Your task to perform on an android device: change notifications settings Image 0: 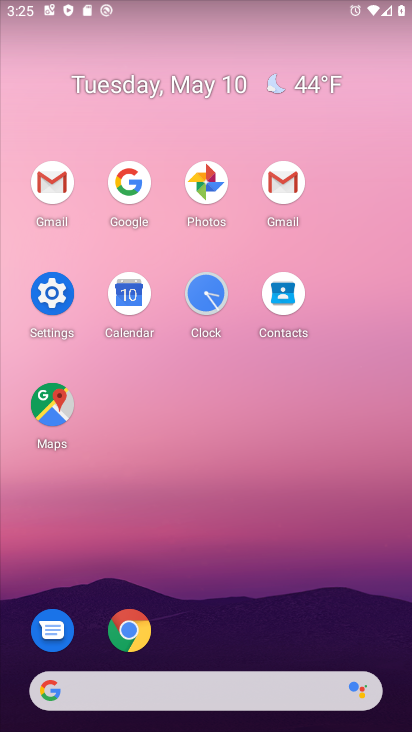
Step 0: click (47, 304)
Your task to perform on an android device: change notifications settings Image 1: 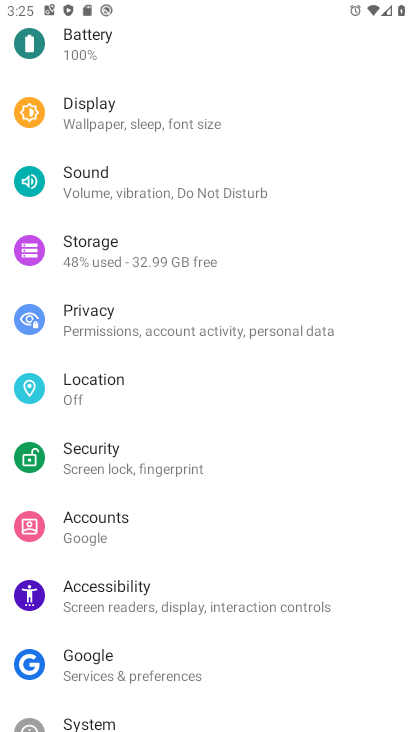
Step 1: drag from (264, 189) to (257, 610)
Your task to perform on an android device: change notifications settings Image 2: 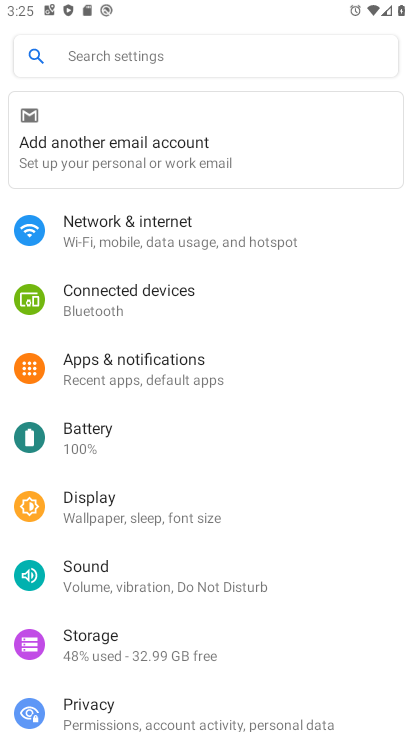
Step 2: click (179, 369)
Your task to perform on an android device: change notifications settings Image 3: 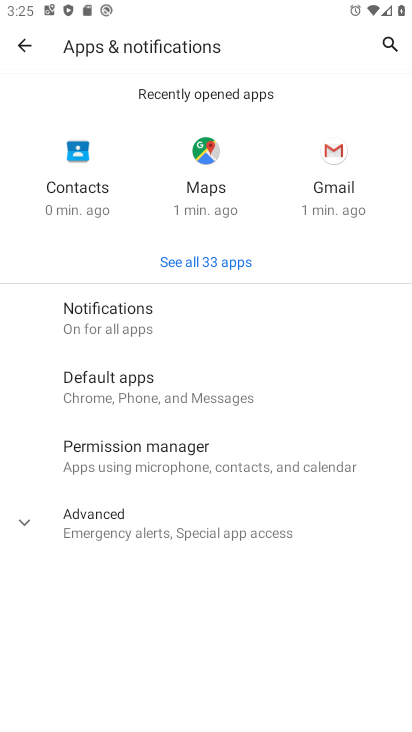
Step 3: click (103, 516)
Your task to perform on an android device: change notifications settings Image 4: 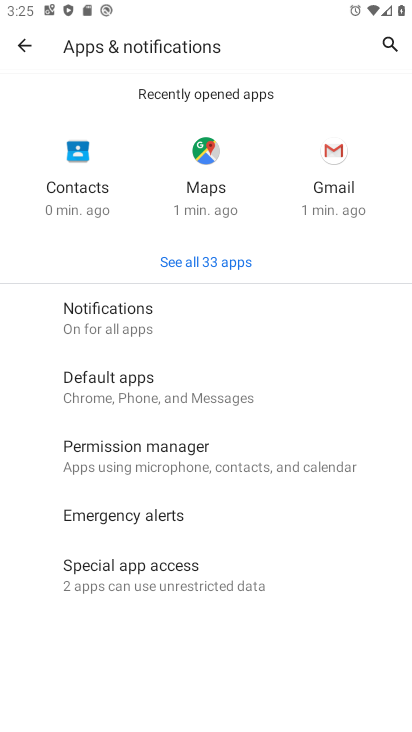
Step 4: drag from (204, 660) to (268, 275)
Your task to perform on an android device: change notifications settings Image 5: 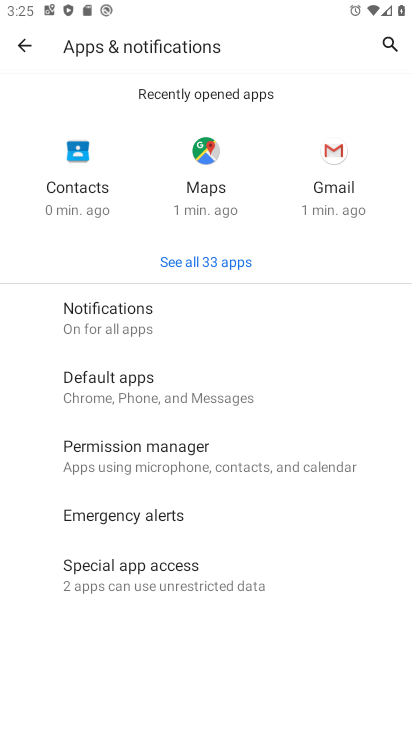
Step 5: click (95, 316)
Your task to perform on an android device: change notifications settings Image 6: 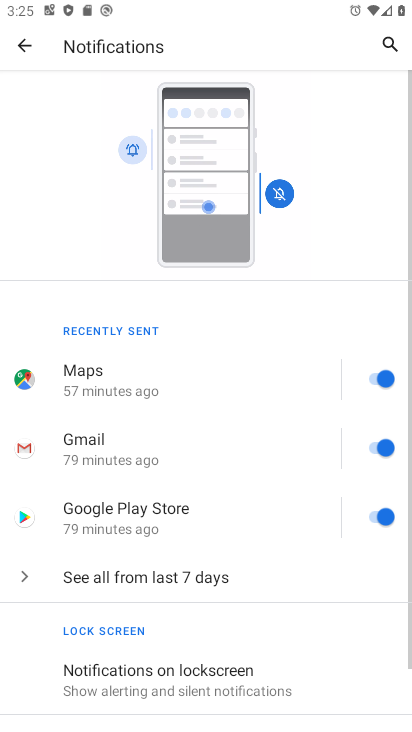
Step 6: drag from (170, 648) to (207, 214)
Your task to perform on an android device: change notifications settings Image 7: 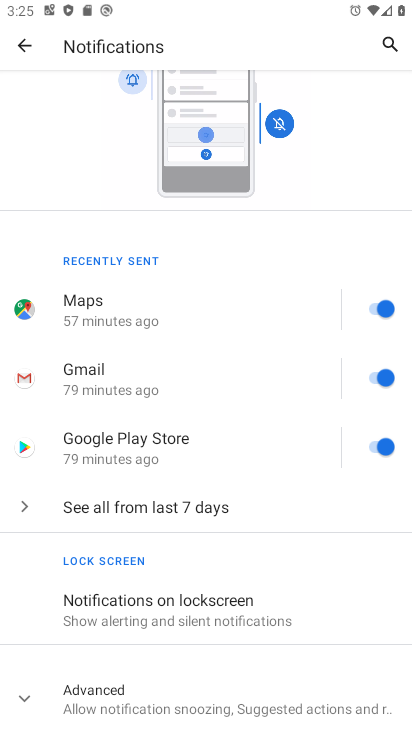
Step 7: click (152, 701)
Your task to perform on an android device: change notifications settings Image 8: 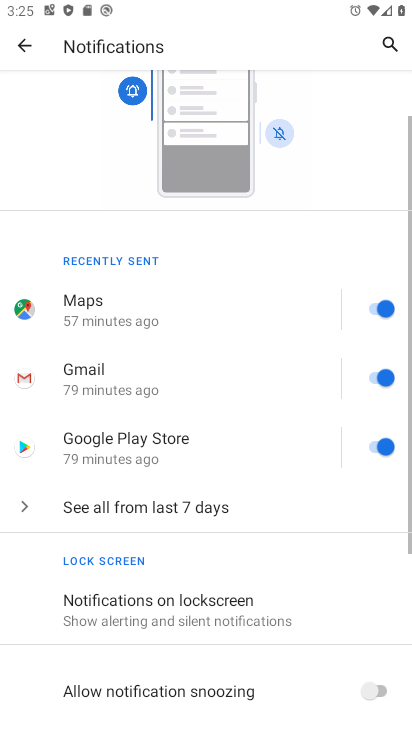
Step 8: drag from (324, 617) to (300, 185)
Your task to perform on an android device: change notifications settings Image 9: 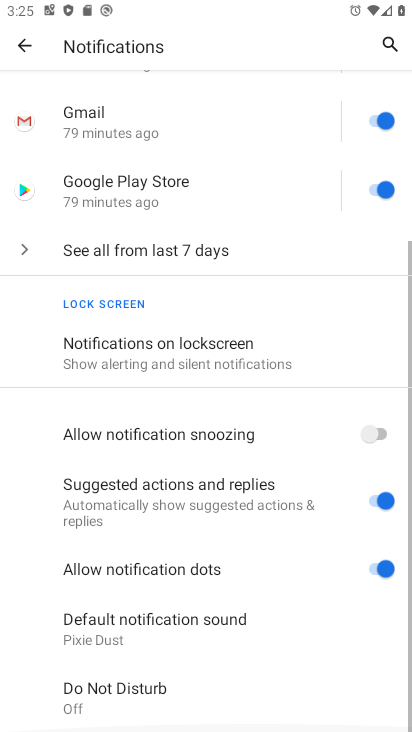
Step 9: drag from (268, 647) to (272, 286)
Your task to perform on an android device: change notifications settings Image 10: 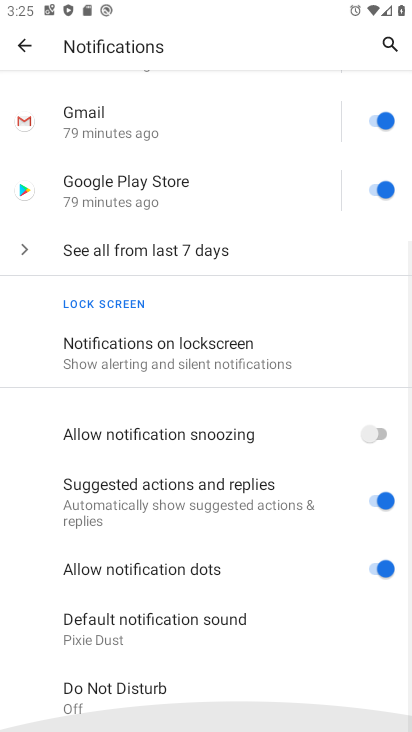
Step 10: click (379, 435)
Your task to perform on an android device: change notifications settings Image 11: 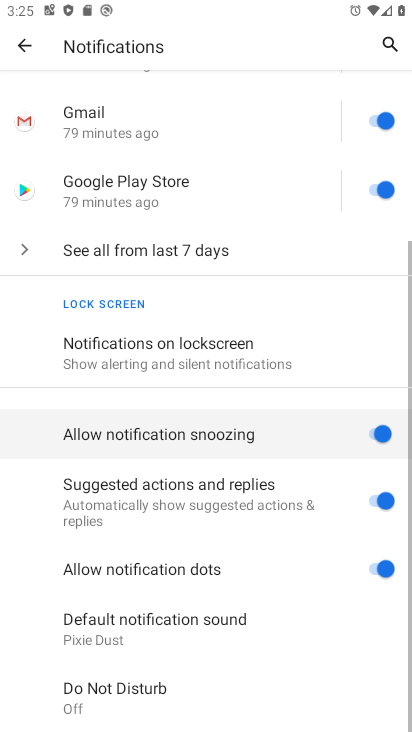
Step 11: click (381, 497)
Your task to perform on an android device: change notifications settings Image 12: 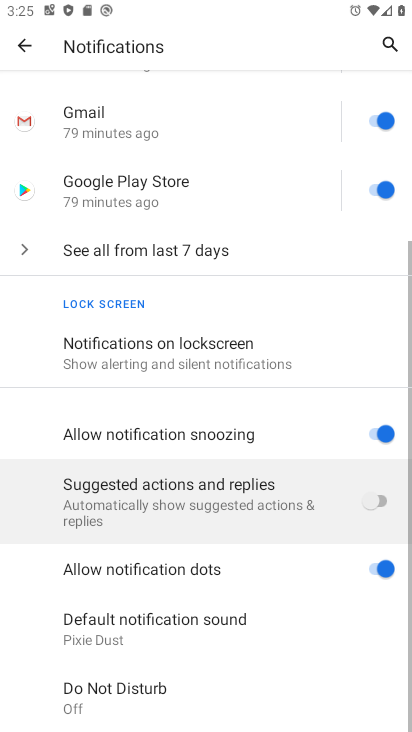
Step 12: click (384, 572)
Your task to perform on an android device: change notifications settings Image 13: 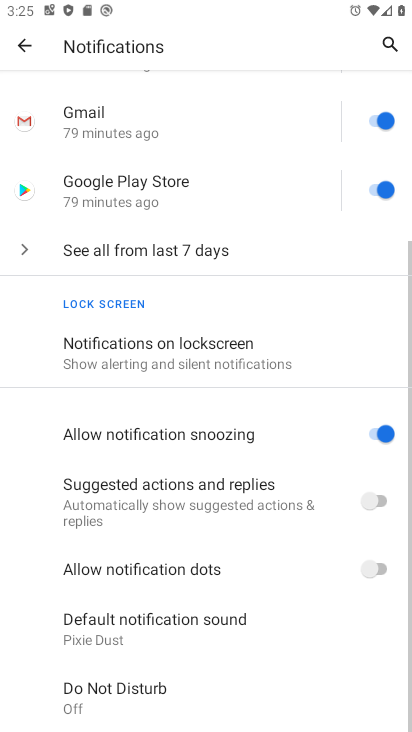
Step 13: task complete